Your task to perform on an android device: When is my next appointment? Image 0: 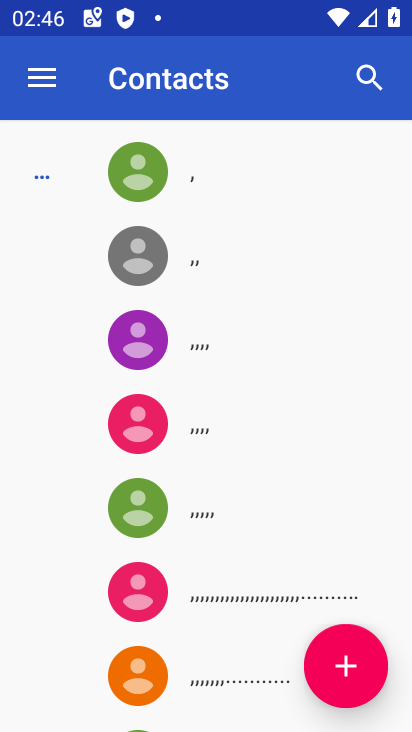
Step 0: press home button
Your task to perform on an android device: When is my next appointment? Image 1: 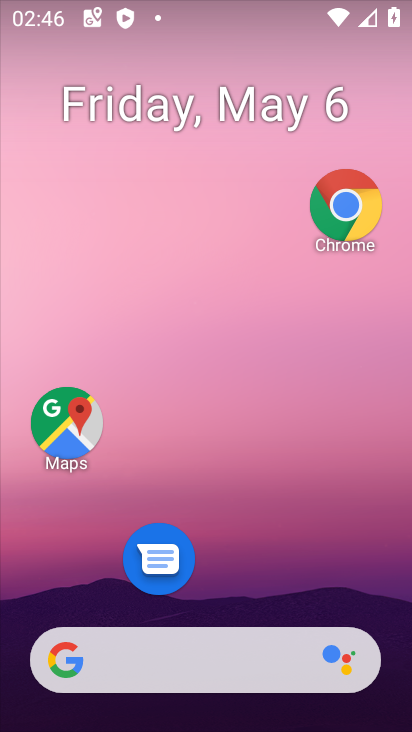
Step 1: drag from (187, 658) to (367, 145)
Your task to perform on an android device: When is my next appointment? Image 2: 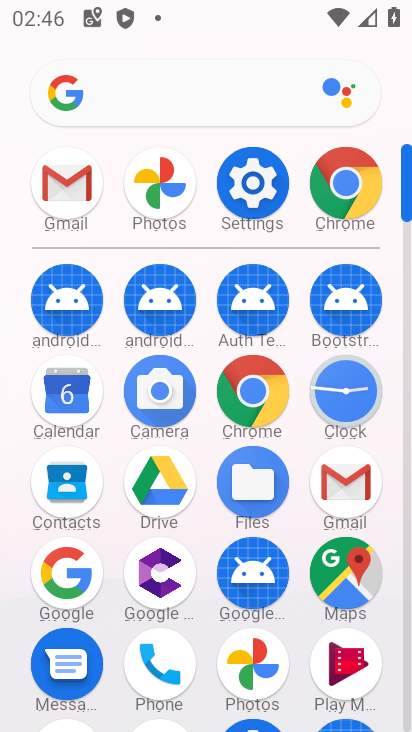
Step 2: click (66, 415)
Your task to perform on an android device: When is my next appointment? Image 3: 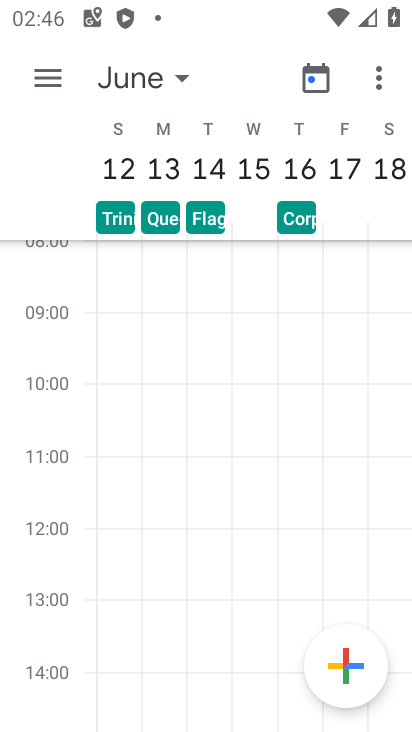
Step 3: click (114, 72)
Your task to perform on an android device: When is my next appointment? Image 4: 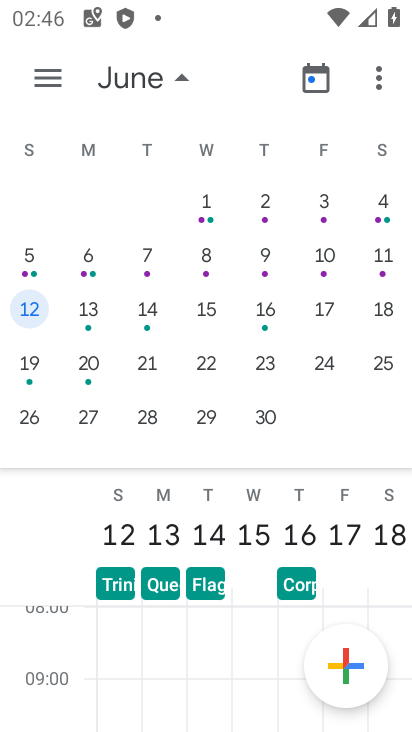
Step 4: drag from (59, 368) to (394, 207)
Your task to perform on an android device: When is my next appointment? Image 5: 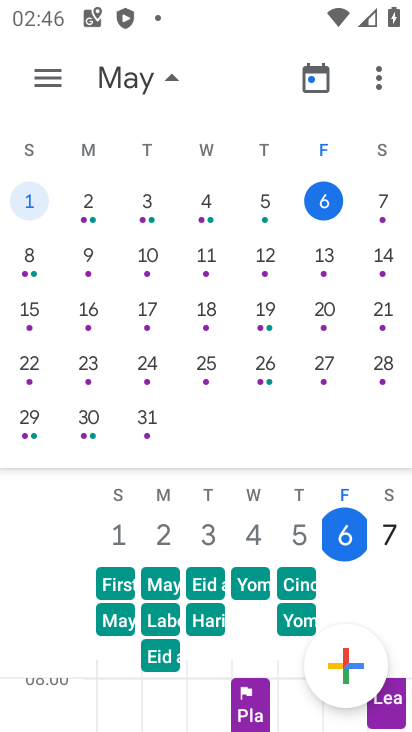
Step 5: click (328, 198)
Your task to perform on an android device: When is my next appointment? Image 6: 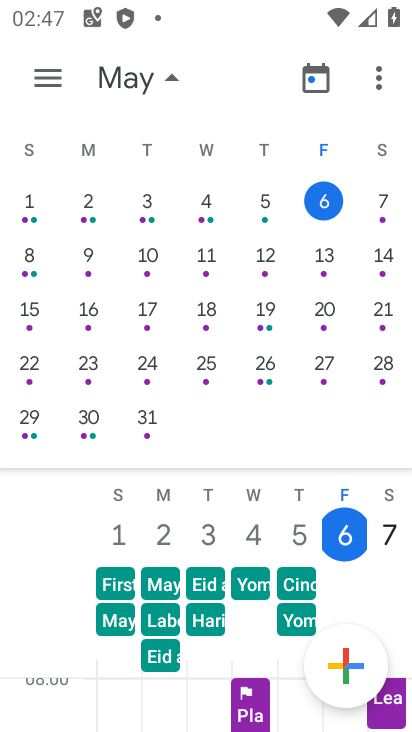
Step 6: click (48, 74)
Your task to perform on an android device: When is my next appointment? Image 7: 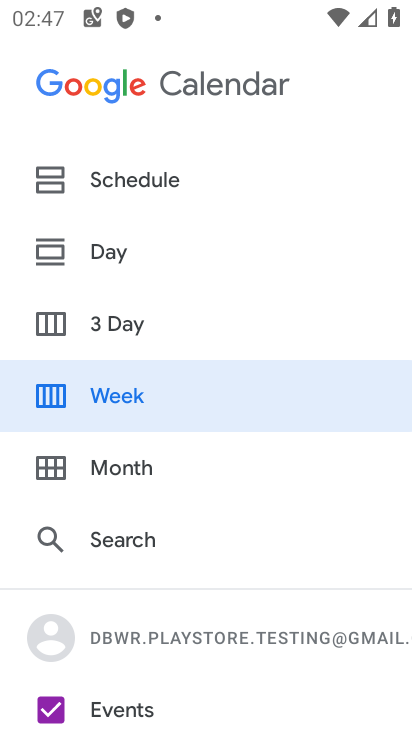
Step 7: click (141, 180)
Your task to perform on an android device: When is my next appointment? Image 8: 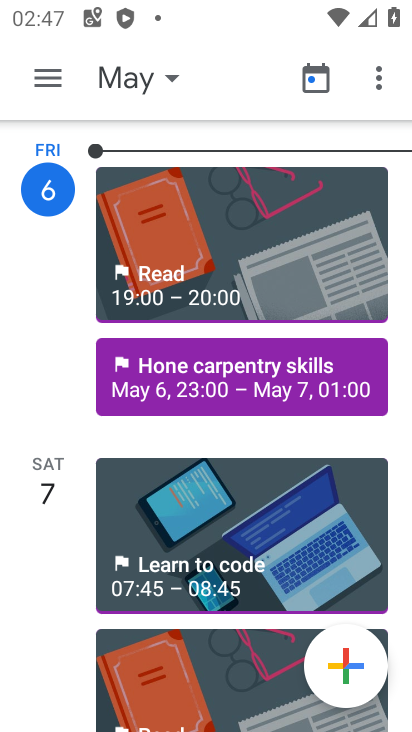
Step 8: click (223, 388)
Your task to perform on an android device: When is my next appointment? Image 9: 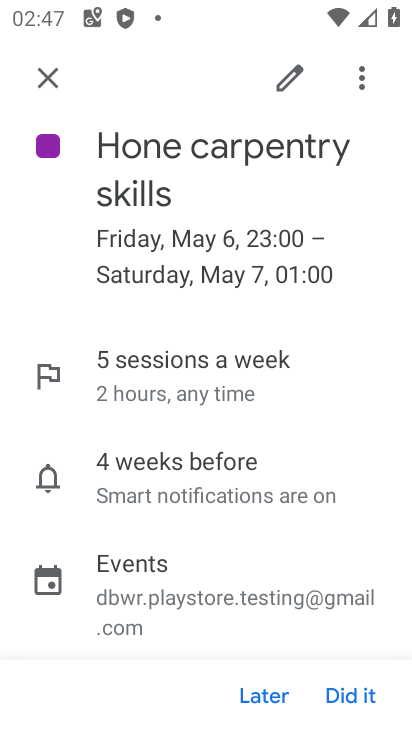
Step 9: task complete